Your task to perform on an android device: change the clock display to analog Image 0: 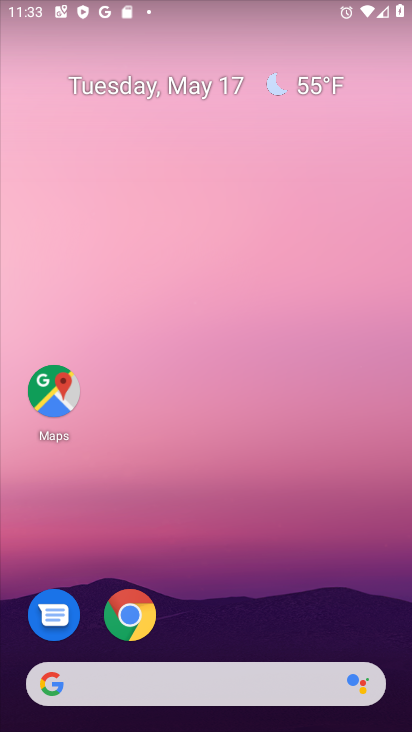
Step 0: drag from (237, 606) to (273, 100)
Your task to perform on an android device: change the clock display to analog Image 1: 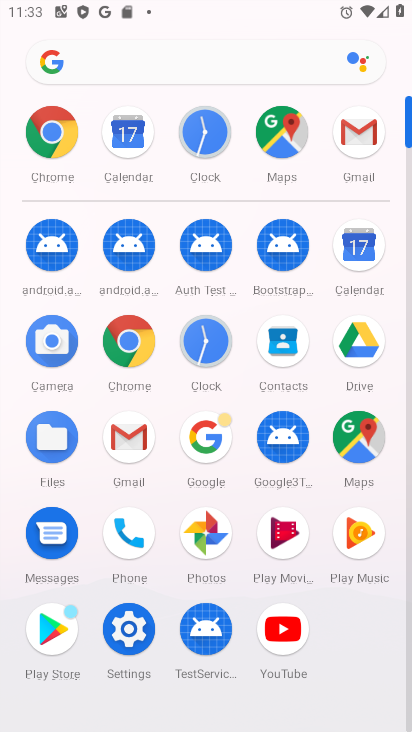
Step 1: click (204, 345)
Your task to perform on an android device: change the clock display to analog Image 2: 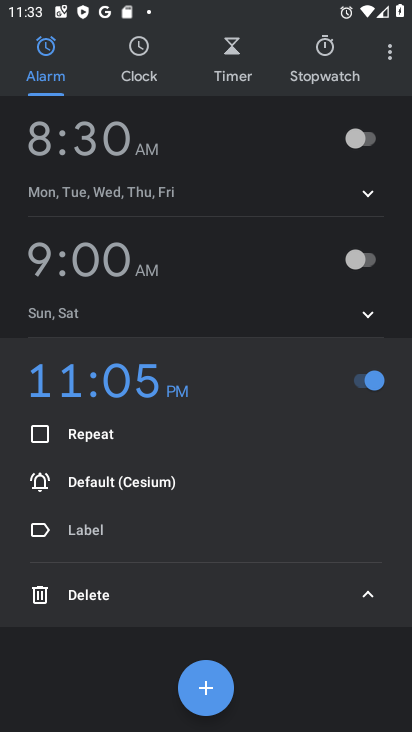
Step 2: drag from (391, 51) to (261, 109)
Your task to perform on an android device: change the clock display to analog Image 3: 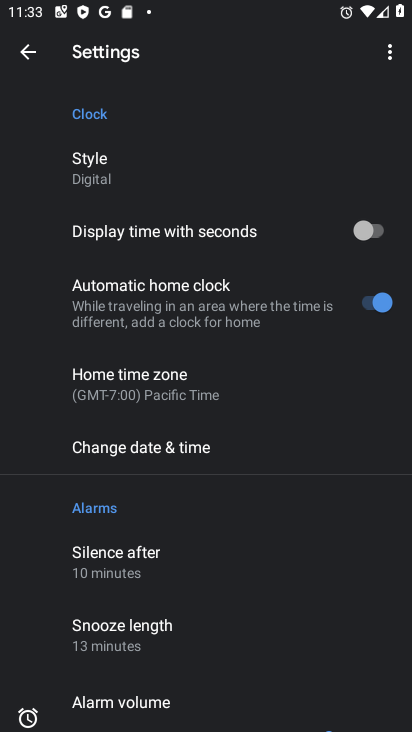
Step 3: click (95, 175)
Your task to perform on an android device: change the clock display to analog Image 4: 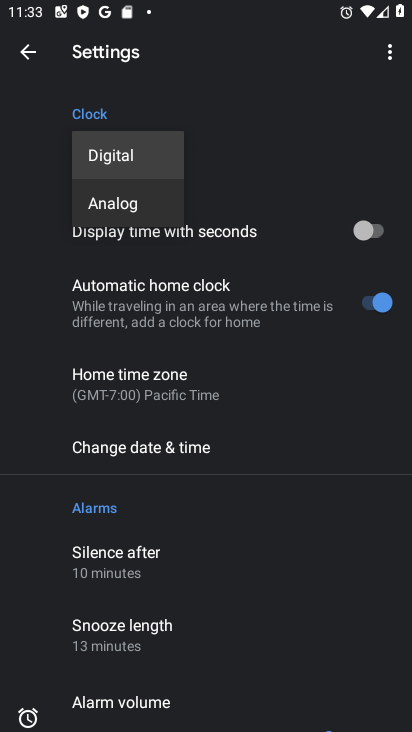
Step 4: click (119, 205)
Your task to perform on an android device: change the clock display to analog Image 5: 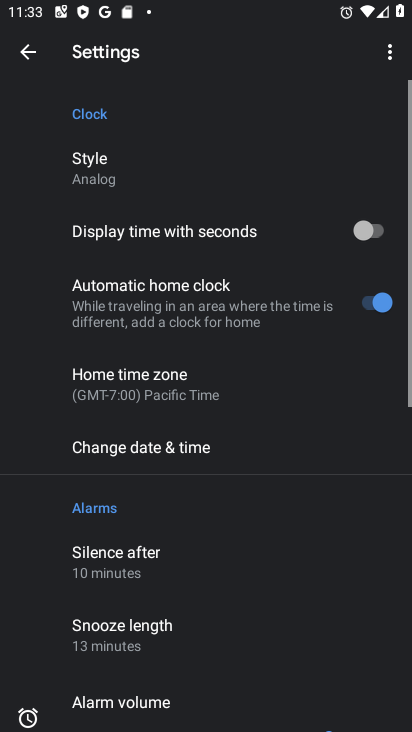
Step 5: task complete